Your task to perform on an android device: toggle sleep mode Image 0: 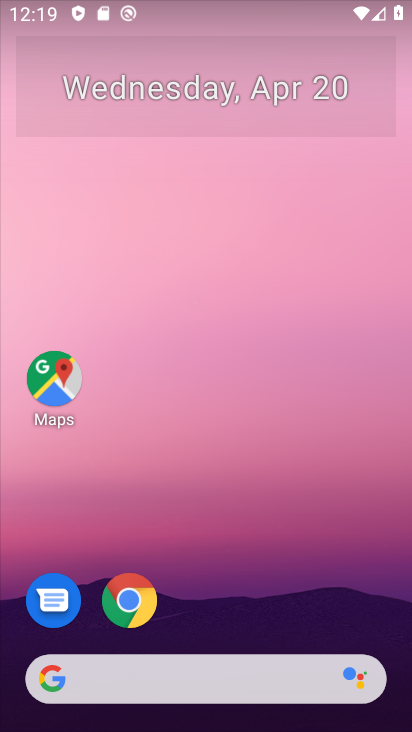
Step 0: drag from (232, 440) to (262, 288)
Your task to perform on an android device: toggle sleep mode Image 1: 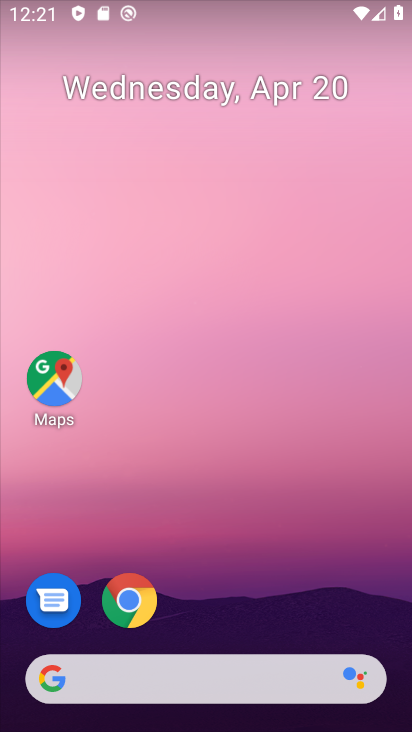
Step 1: drag from (215, 623) to (294, 131)
Your task to perform on an android device: toggle sleep mode Image 2: 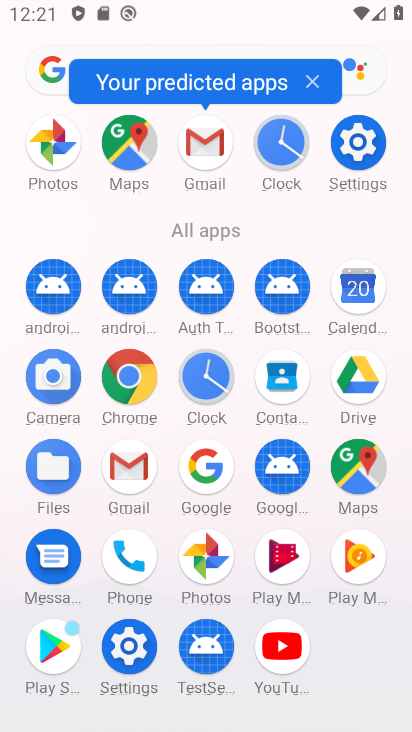
Step 2: click (362, 152)
Your task to perform on an android device: toggle sleep mode Image 3: 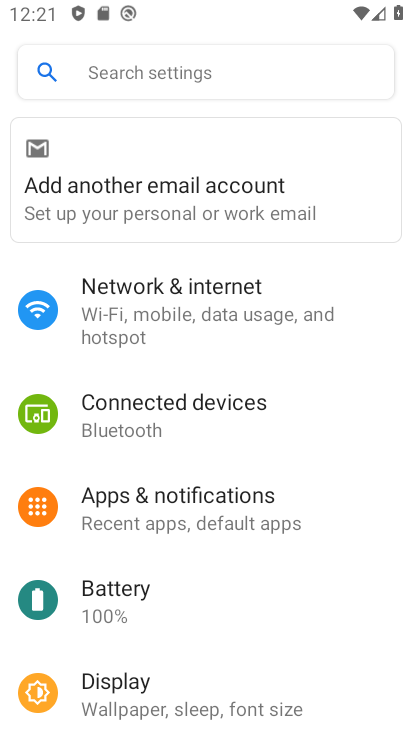
Step 3: drag from (245, 599) to (253, 216)
Your task to perform on an android device: toggle sleep mode Image 4: 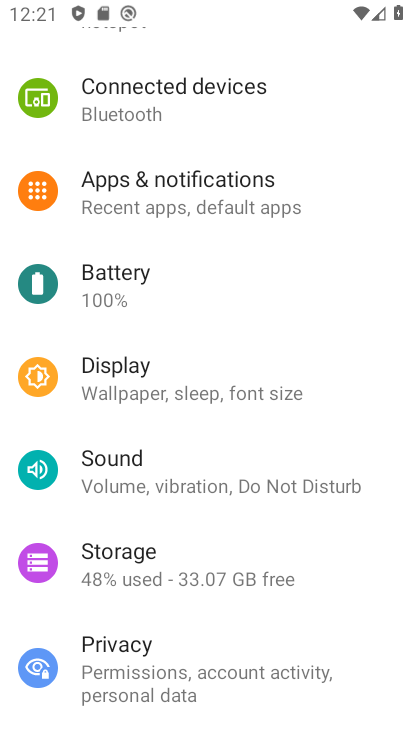
Step 4: click (231, 385)
Your task to perform on an android device: toggle sleep mode Image 5: 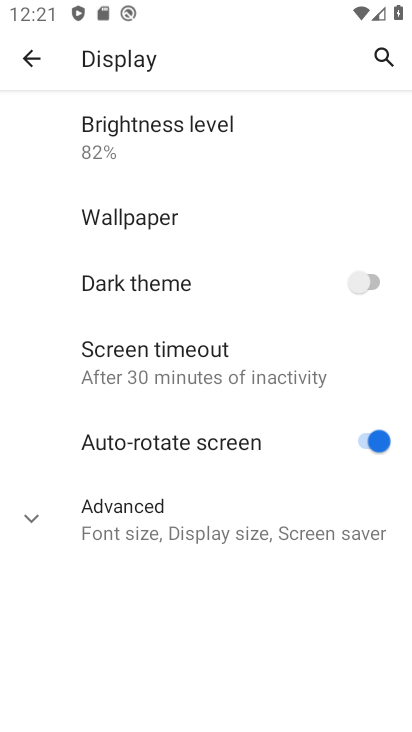
Step 5: click (231, 385)
Your task to perform on an android device: toggle sleep mode Image 6: 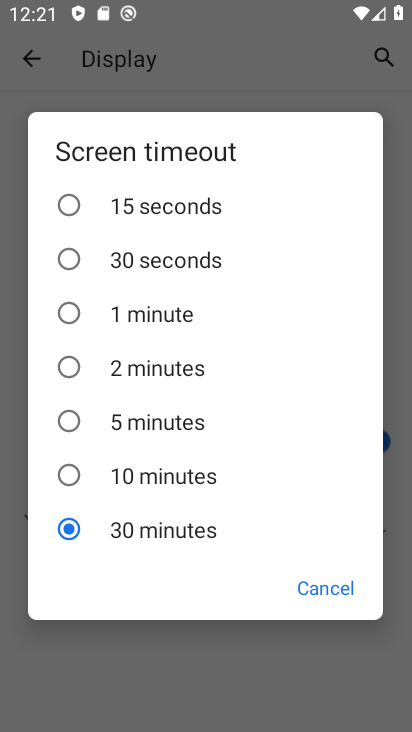
Step 6: click (118, 258)
Your task to perform on an android device: toggle sleep mode Image 7: 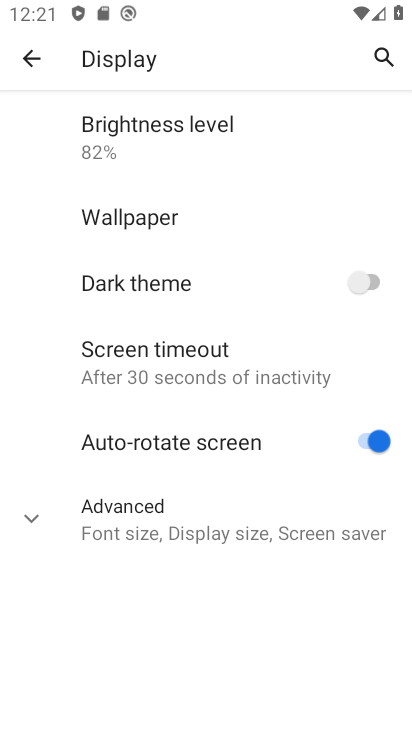
Step 7: task complete